Your task to perform on an android device: turn off translation in the chrome app Image 0: 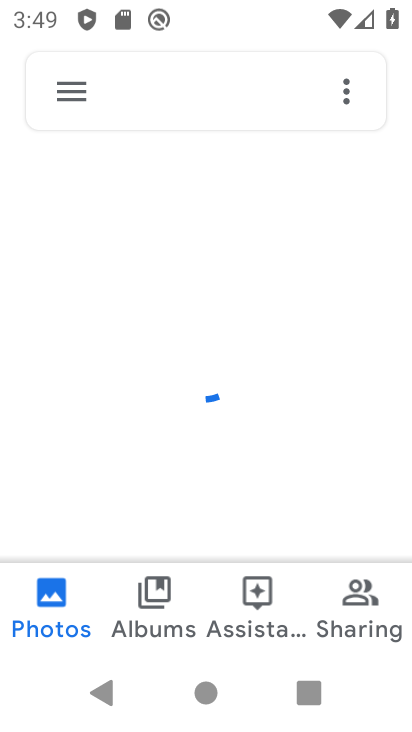
Step 0: press home button
Your task to perform on an android device: turn off translation in the chrome app Image 1: 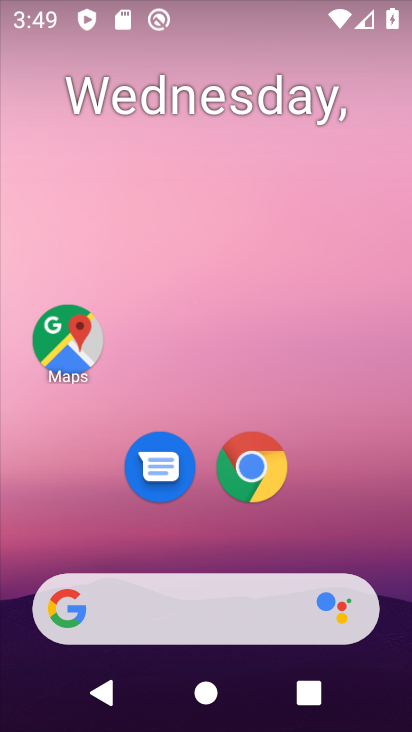
Step 1: click (253, 463)
Your task to perform on an android device: turn off translation in the chrome app Image 2: 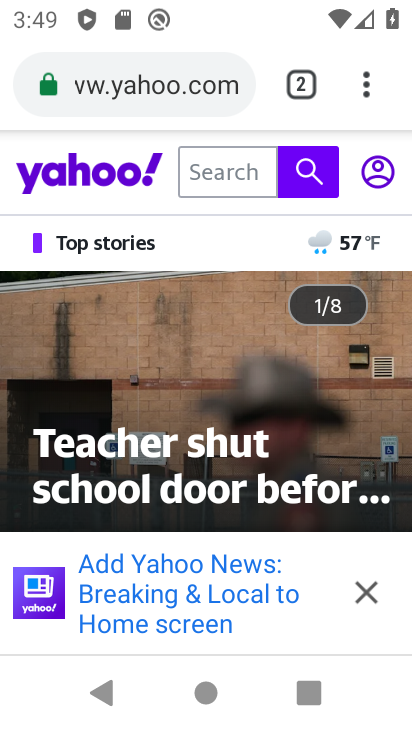
Step 2: click (362, 77)
Your task to perform on an android device: turn off translation in the chrome app Image 3: 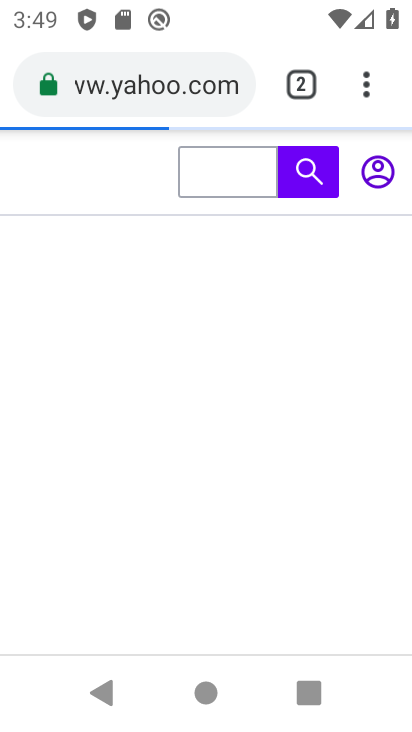
Step 3: click (361, 80)
Your task to perform on an android device: turn off translation in the chrome app Image 4: 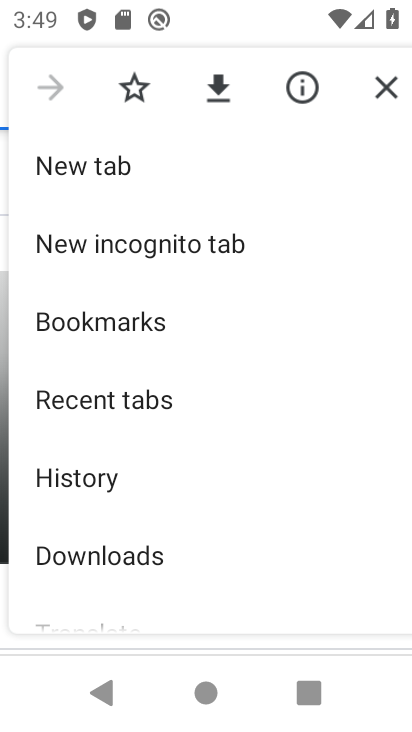
Step 4: drag from (222, 542) to (194, 67)
Your task to perform on an android device: turn off translation in the chrome app Image 5: 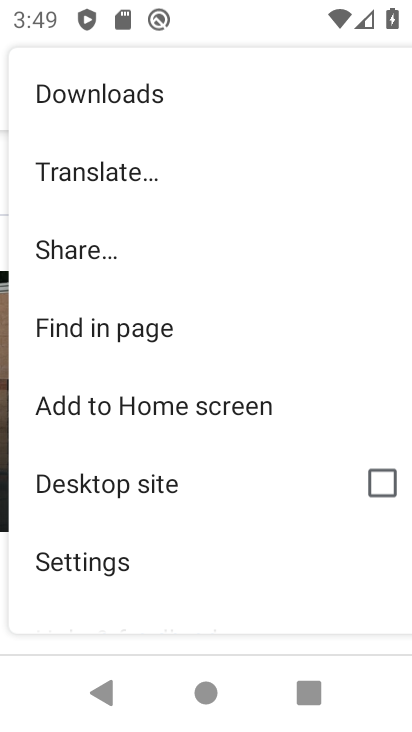
Step 5: click (193, 558)
Your task to perform on an android device: turn off translation in the chrome app Image 6: 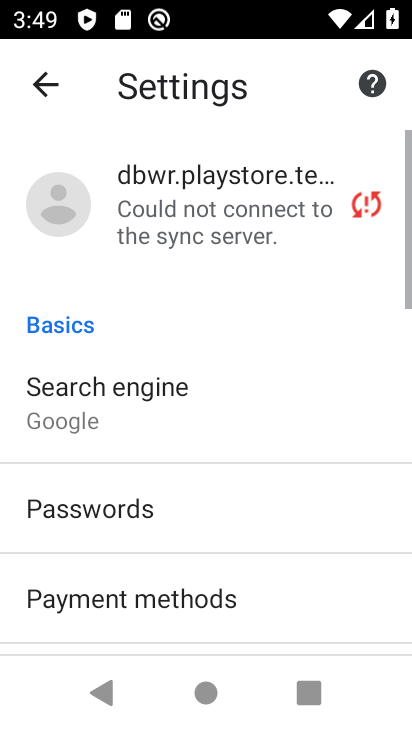
Step 6: drag from (221, 548) to (231, 80)
Your task to perform on an android device: turn off translation in the chrome app Image 7: 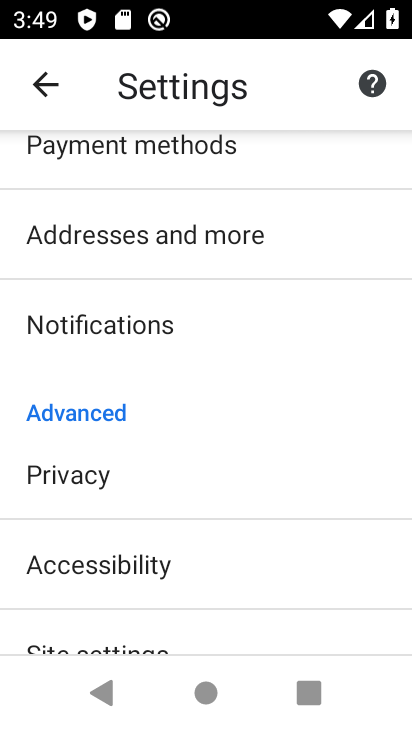
Step 7: drag from (197, 505) to (202, 221)
Your task to perform on an android device: turn off translation in the chrome app Image 8: 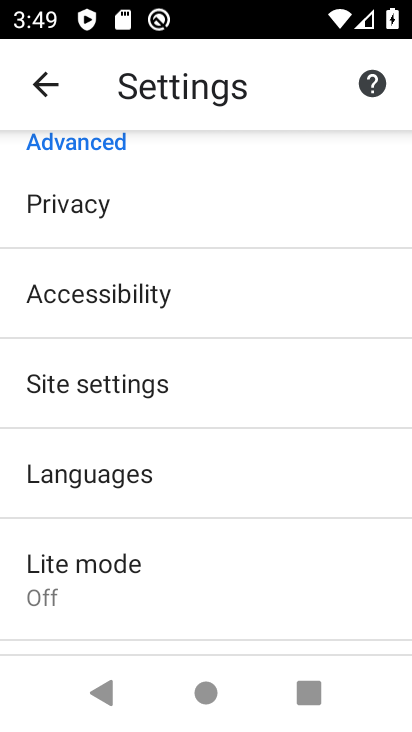
Step 8: click (161, 467)
Your task to perform on an android device: turn off translation in the chrome app Image 9: 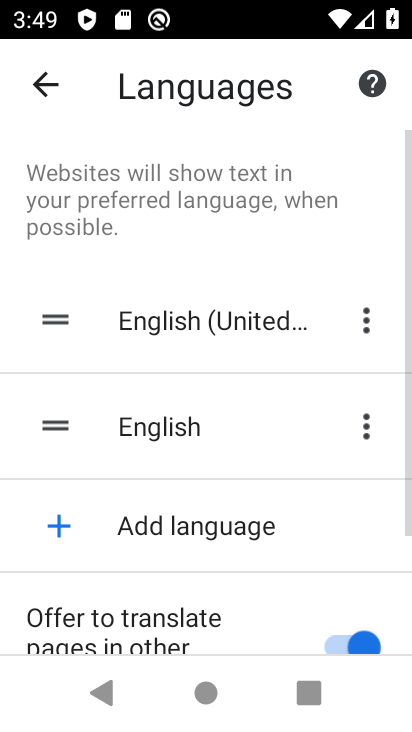
Step 9: click (368, 627)
Your task to perform on an android device: turn off translation in the chrome app Image 10: 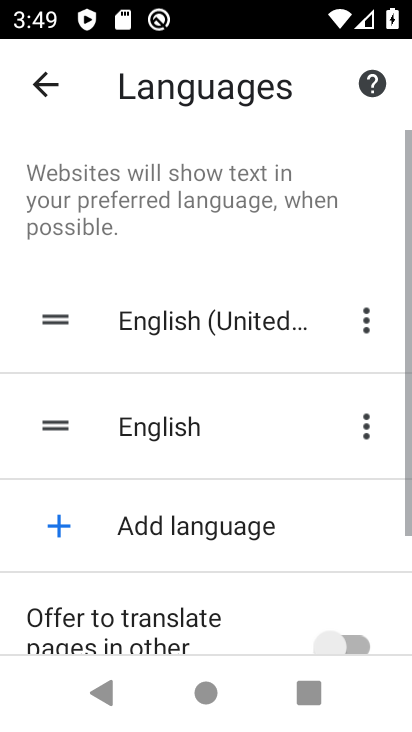
Step 10: task complete